Your task to perform on an android device: Find coffee shops on Maps Image 0: 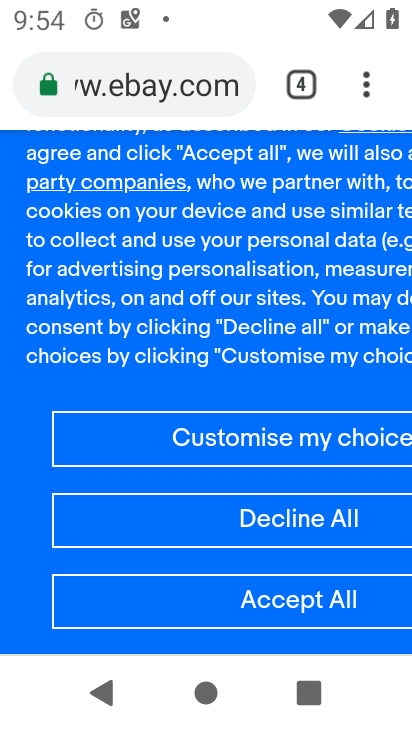
Step 0: press home button
Your task to perform on an android device: Find coffee shops on Maps Image 1: 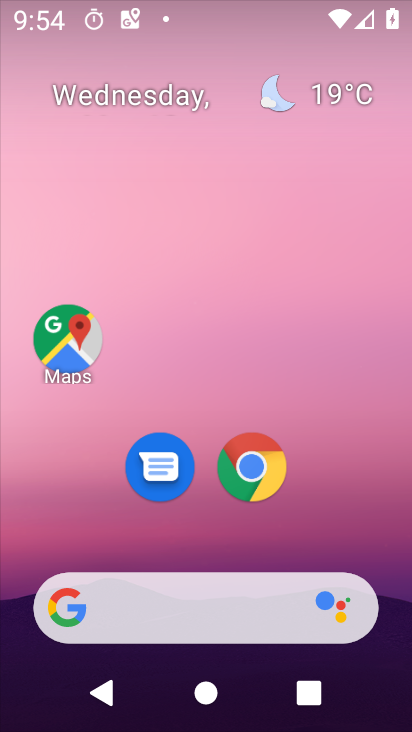
Step 1: click (46, 362)
Your task to perform on an android device: Find coffee shops on Maps Image 2: 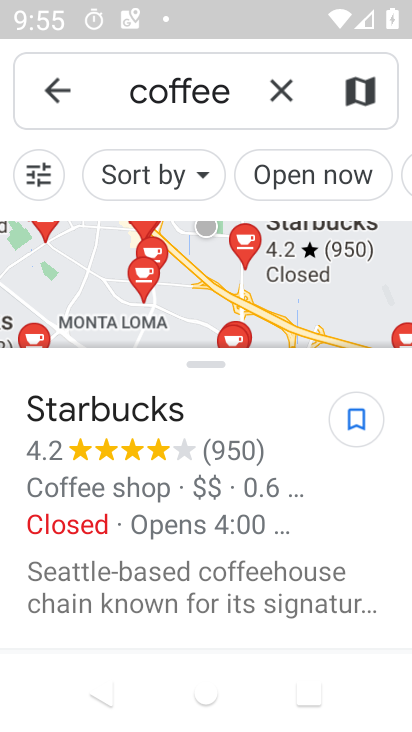
Step 2: task complete